Your task to perform on an android device: Do I have any events this weekend? Image 0: 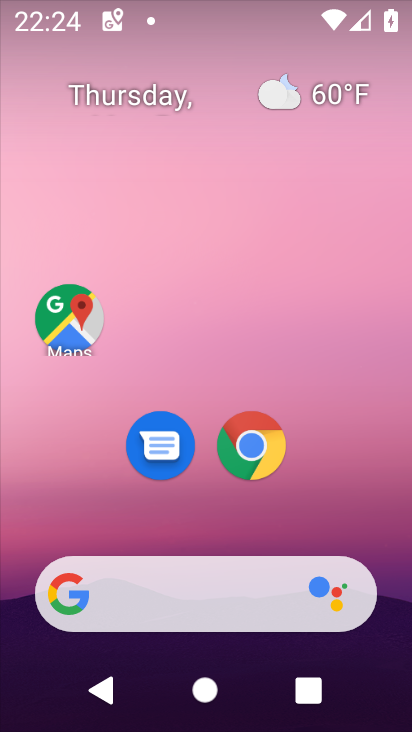
Step 0: drag from (179, 581) to (2, 8)
Your task to perform on an android device: Do I have any events this weekend? Image 1: 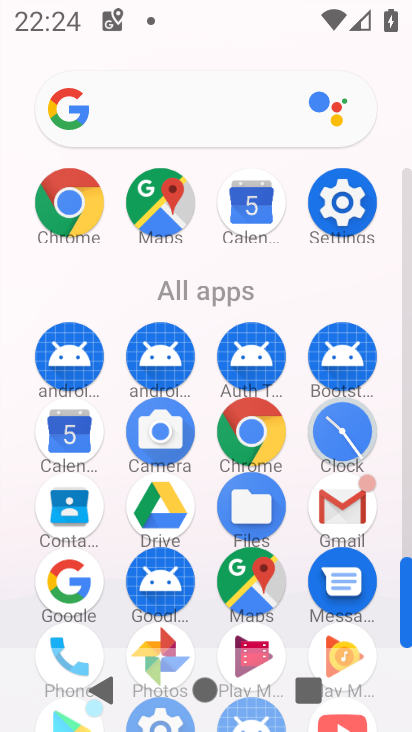
Step 1: click (55, 442)
Your task to perform on an android device: Do I have any events this weekend? Image 2: 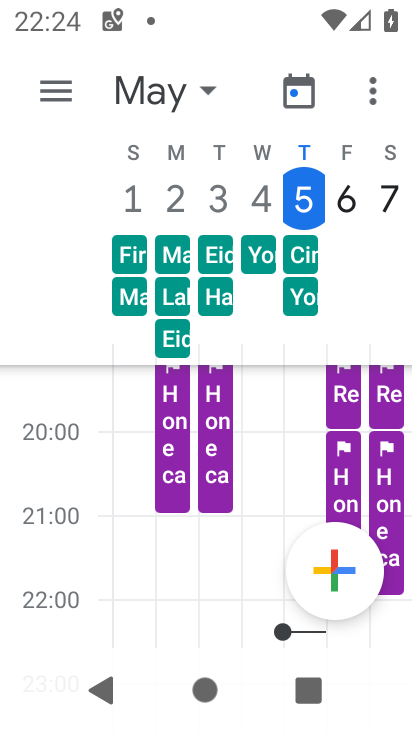
Step 2: task complete